Your task to perform on an android device: Do I have any events today? Image 0: 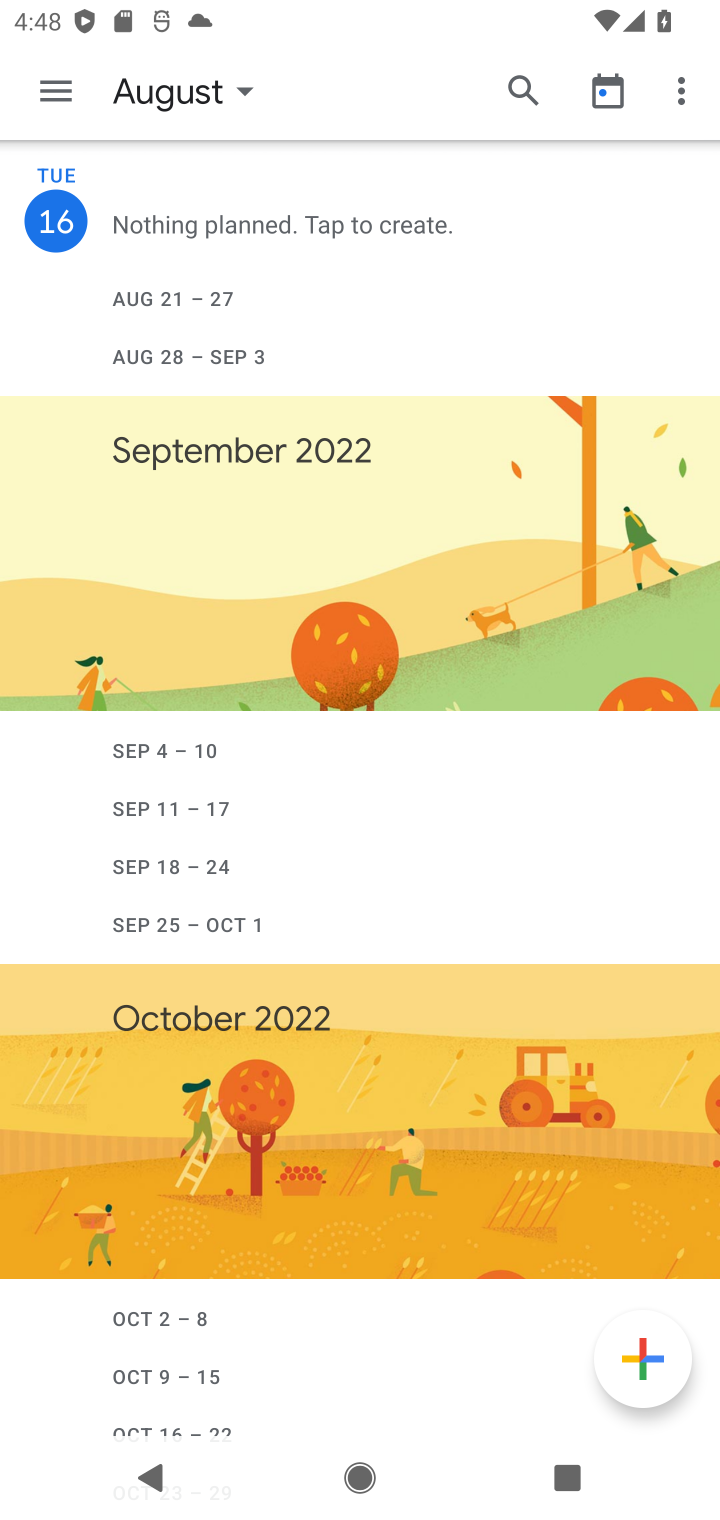
Step 0: press home button
Your task to perform on an android device: Do I have any events today? Image 1: 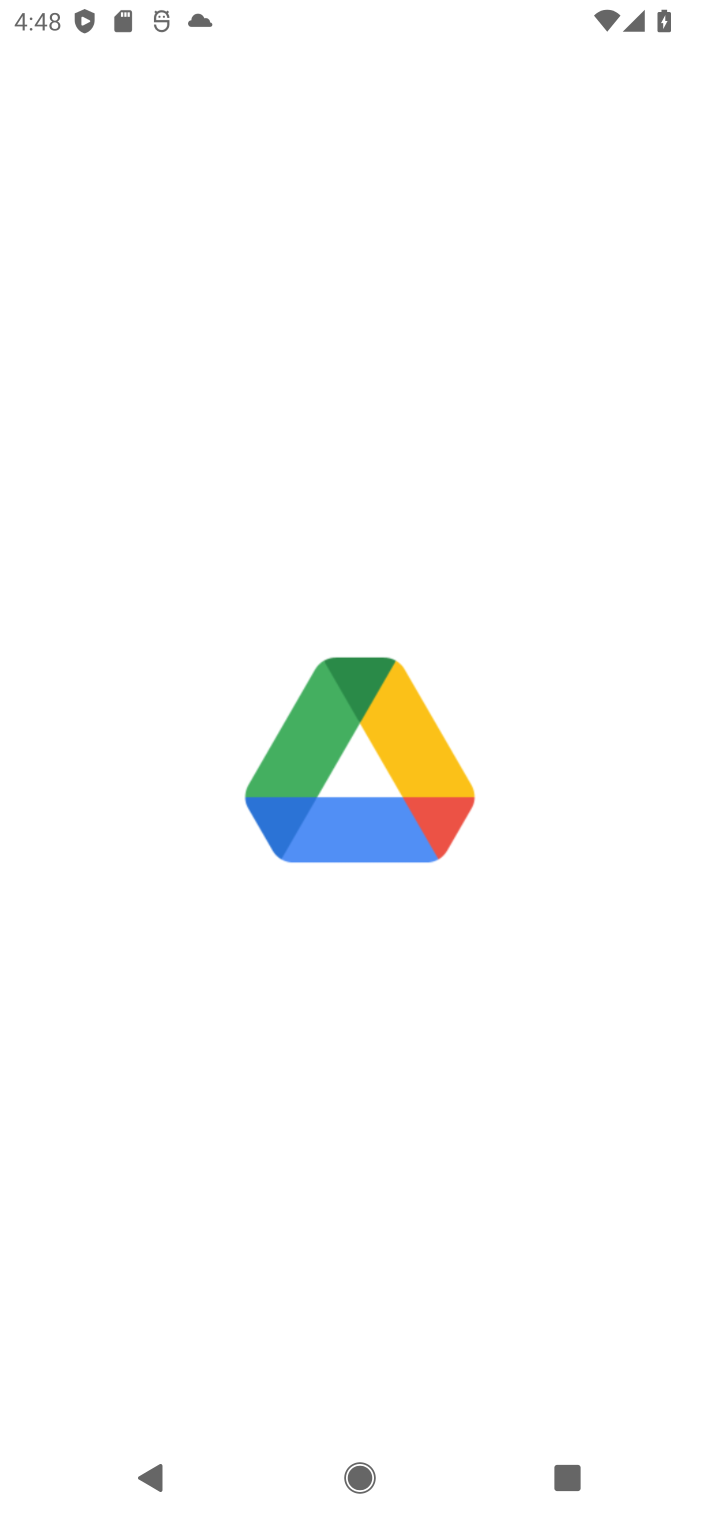
Step 1: press home button
Your task to perform on an android device: Do I have any events today? Image 2: 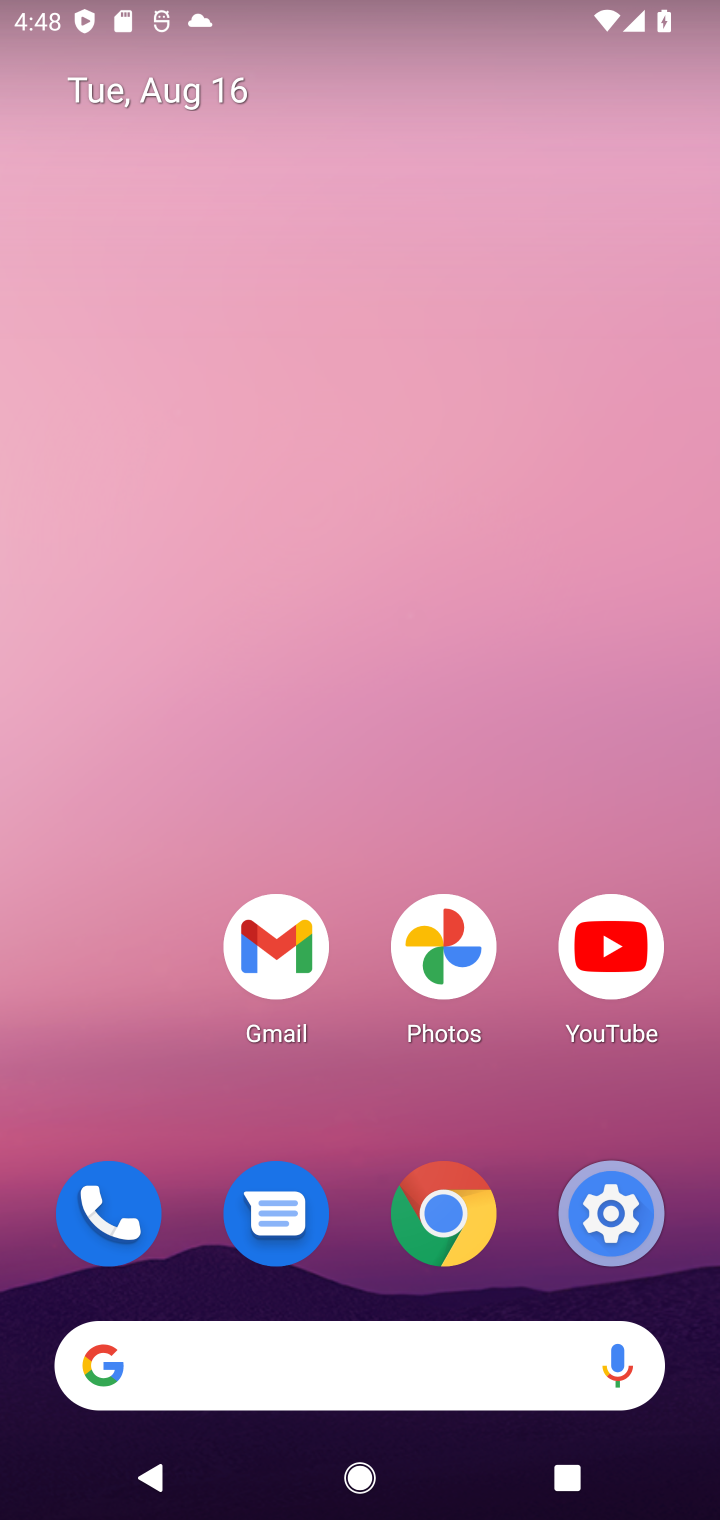
Step 2: drag from (514, 1130) to (549, 1)
Your task to perform on an android device: Do I have any events today? Image 3: 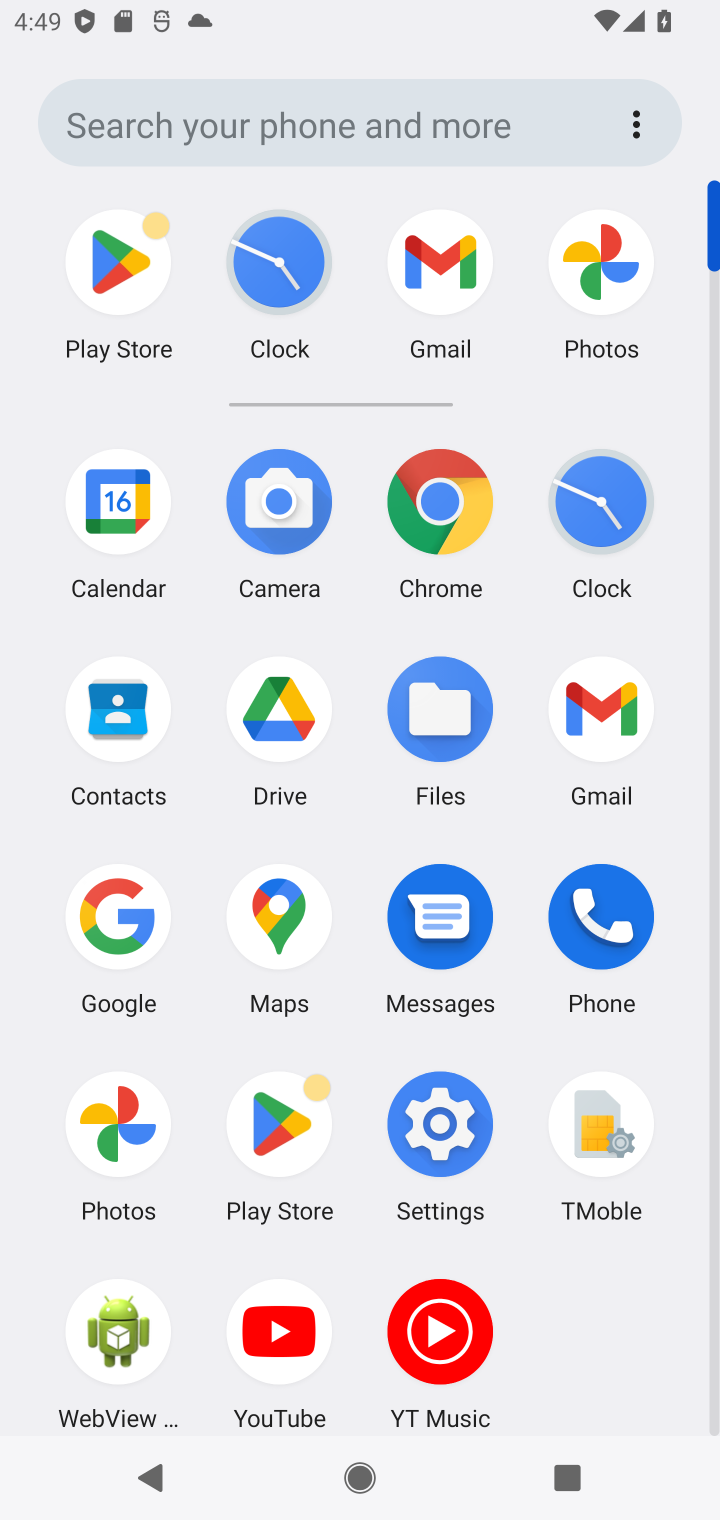
Step 3: click (140, 512)
Your task to perform on an android device: Do I have any events today? Image 4: 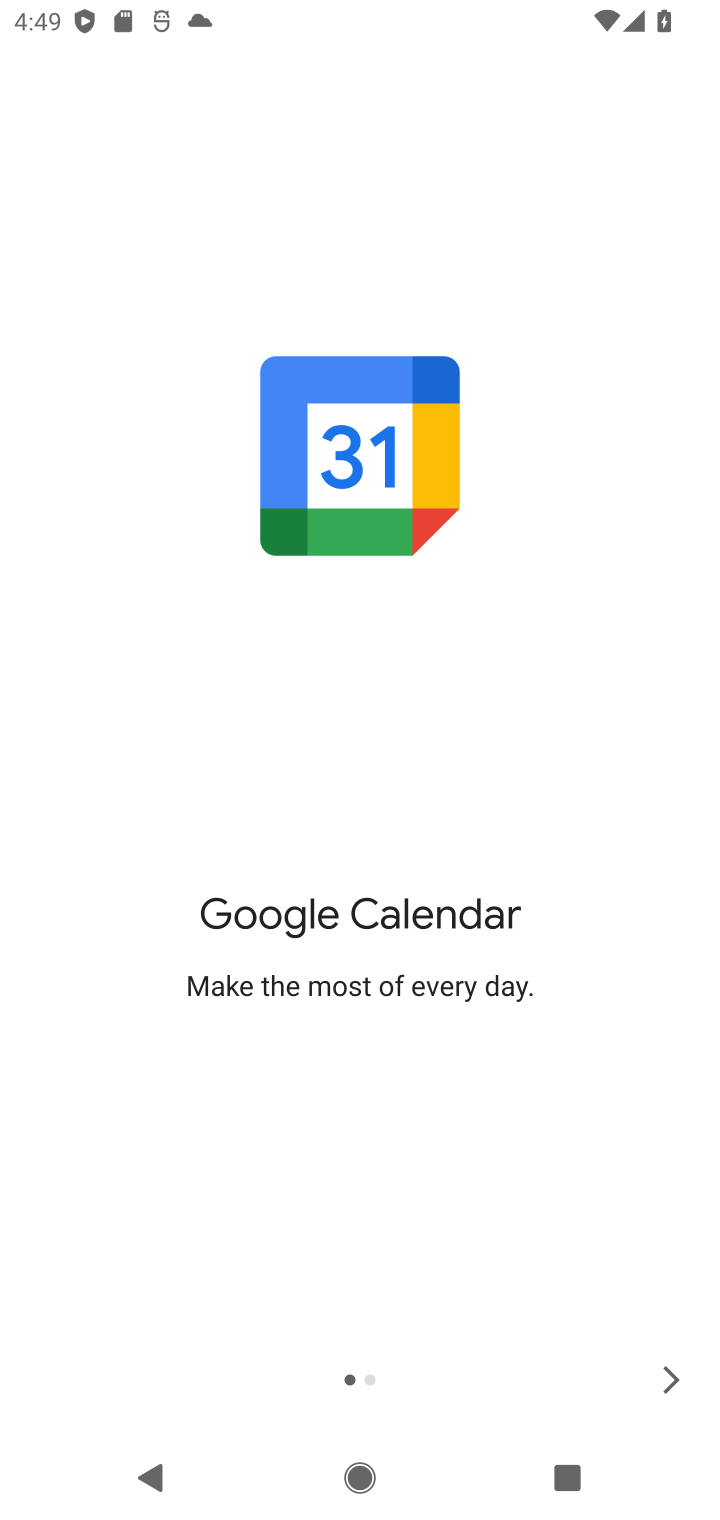
Step 4: click (695, 1353)
Your task to perform on an android device: Do I have any events today? Image 5: 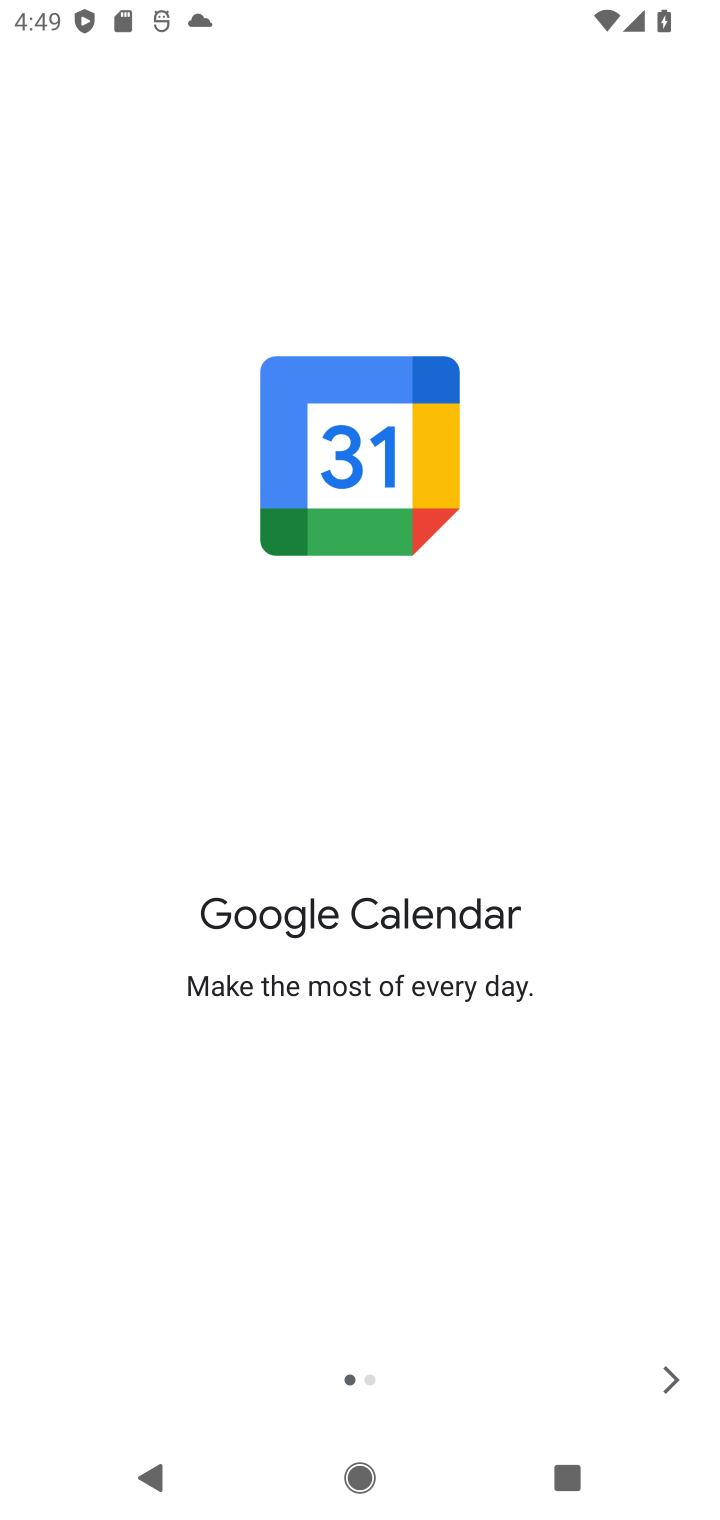
Step 5: click (688, 1364)
Your task to perform on an android device: Do I have any events today? Image 6: 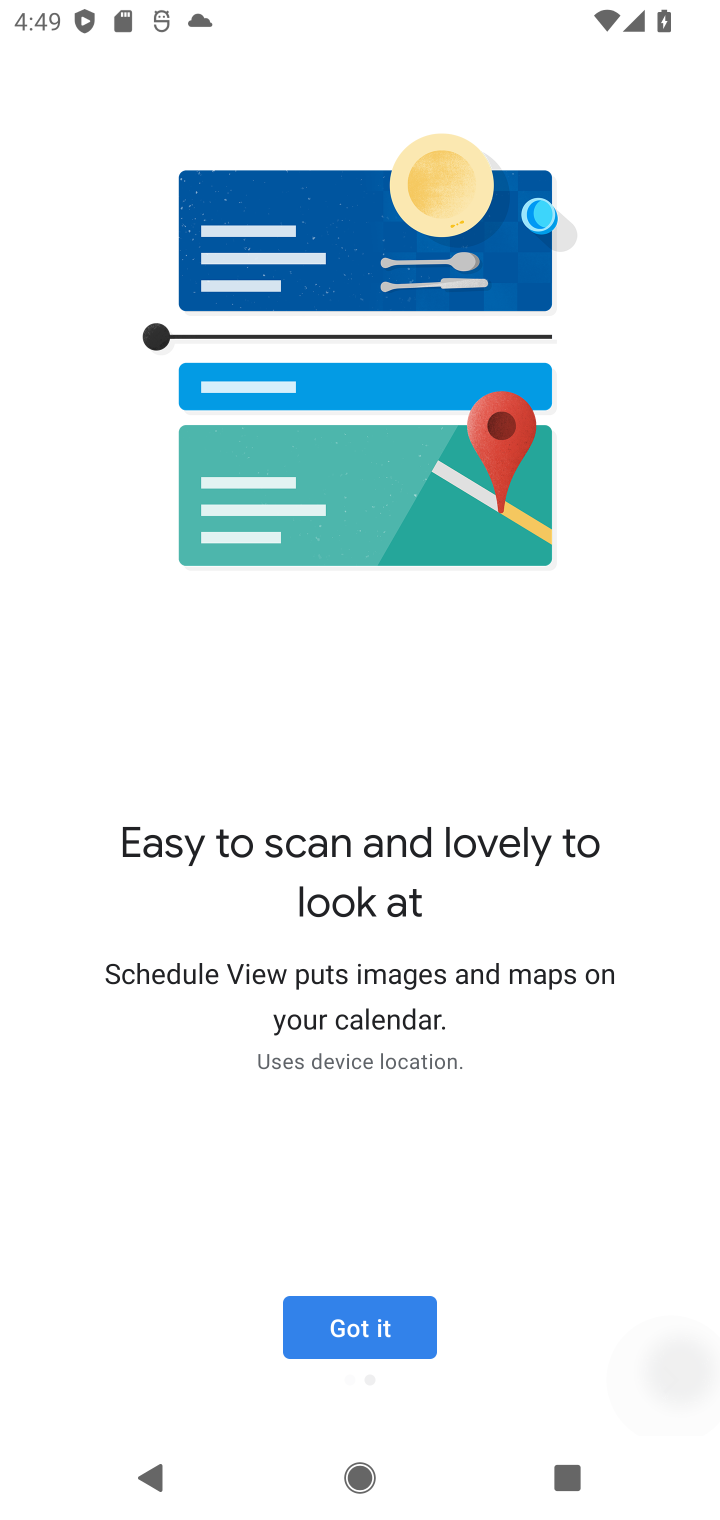
Step 6: click (667, 1378)
Your task to perform on an android device: Do I have any events today? Image 7: 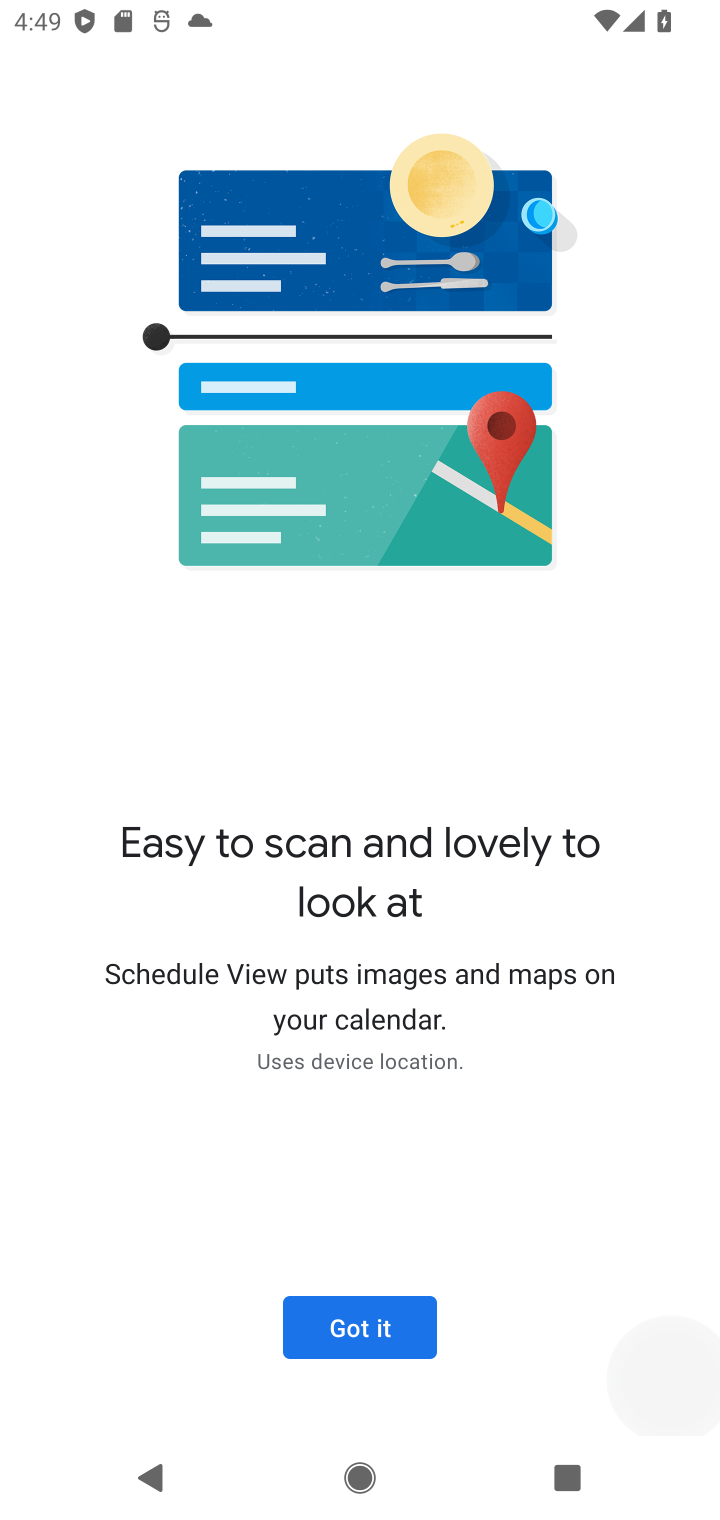
Step 7: click (312, 1309)
Your task to perform on an android device: Do I have any events today? Image 8: 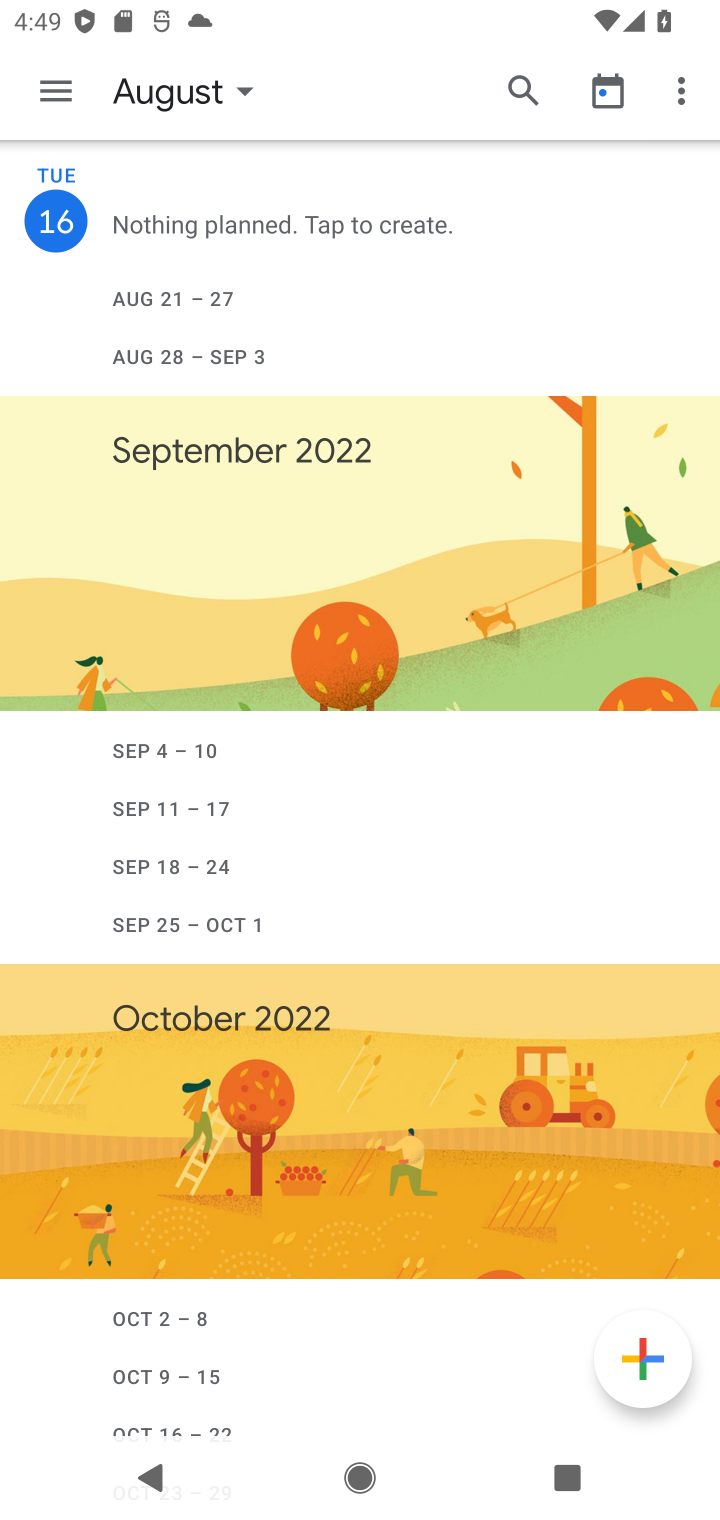
Step 8: task complete